Your task to perform on an android device: Show the shopping cart on newegg.com. Search for "apple airpods" on newegg.com, select the first entry, and add it to the cart. Image 0: 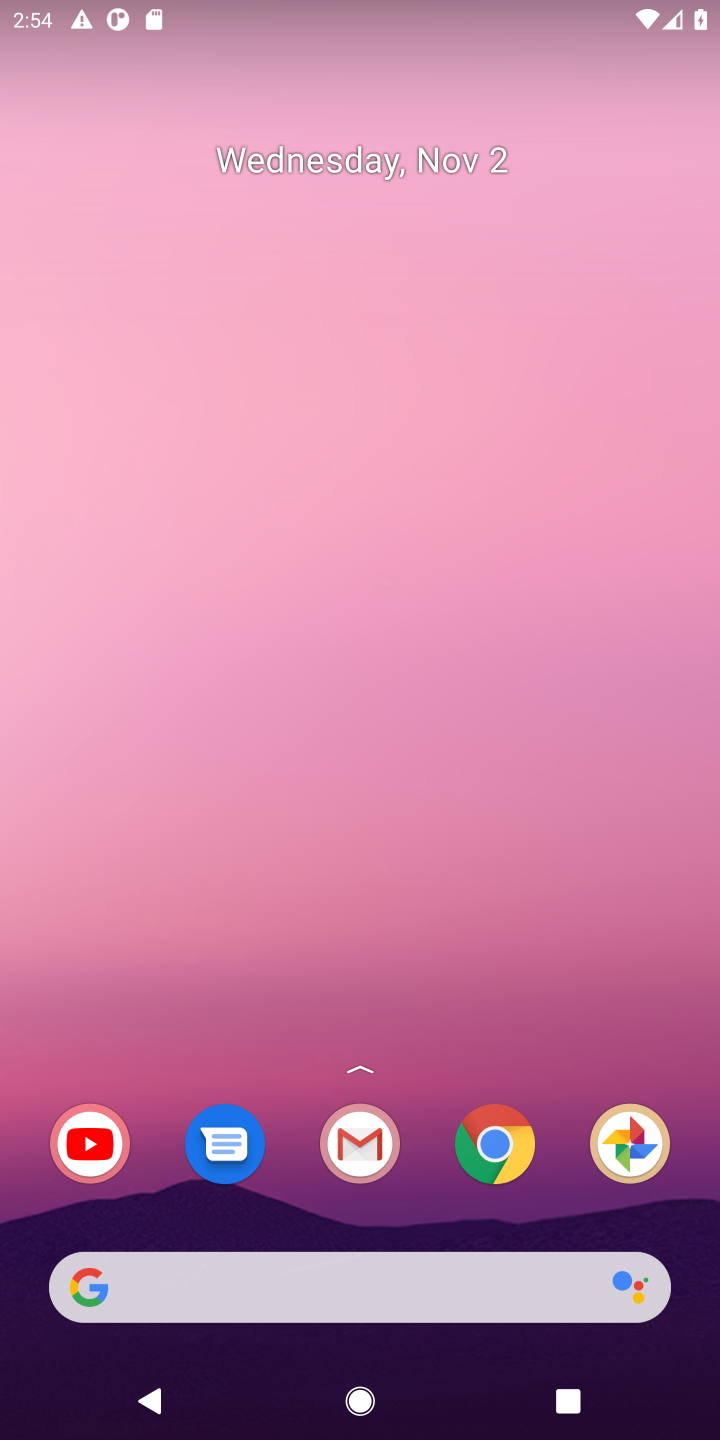
Step 0: press home button
Your task to perform on an android device: Show the shopping cart on newegg.com. Search for "apple airpods" on newegg.com, select the first entry, and add it to the cart. Image 1: 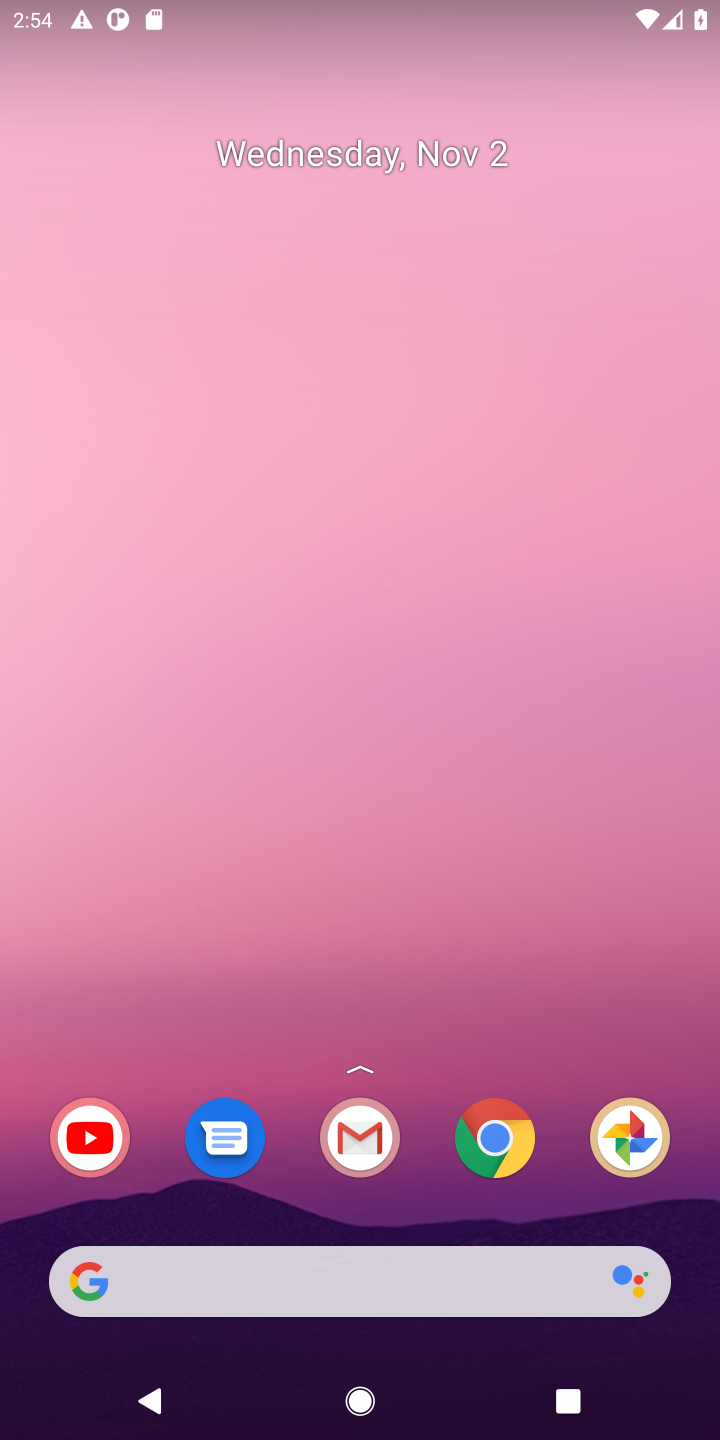
Step 1: click (152, 1272)
Your task to perform on an android device: Show the shopping cart on newegg.com. Search for "apple airpods" on newegg.com, select the first entry, and add it to the cart. Image 2: 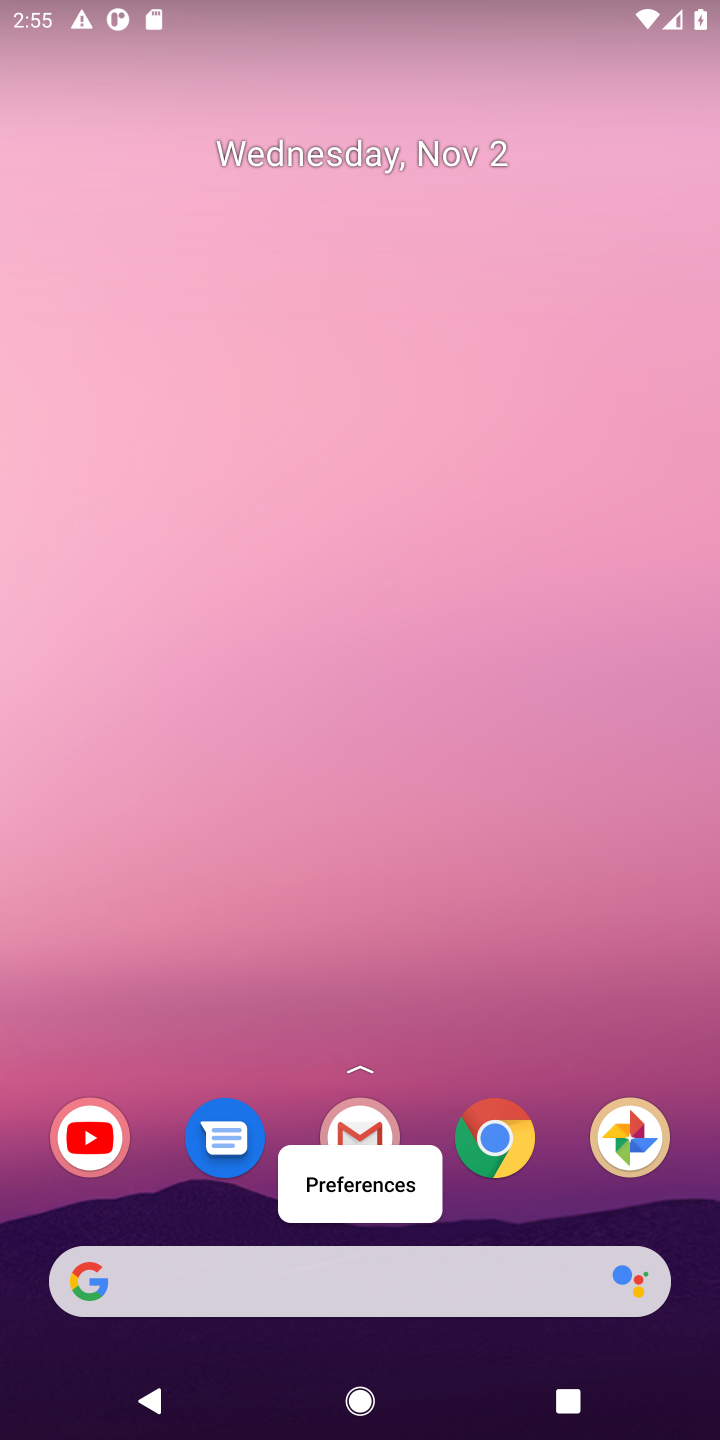
Step 2: click (135, 1273)
Your task to perform on an android device: Show the shopping cart on newegg.com. Search for "apple airpods" on newegg.com, select the first entry, and add it to the cart. Image 3: 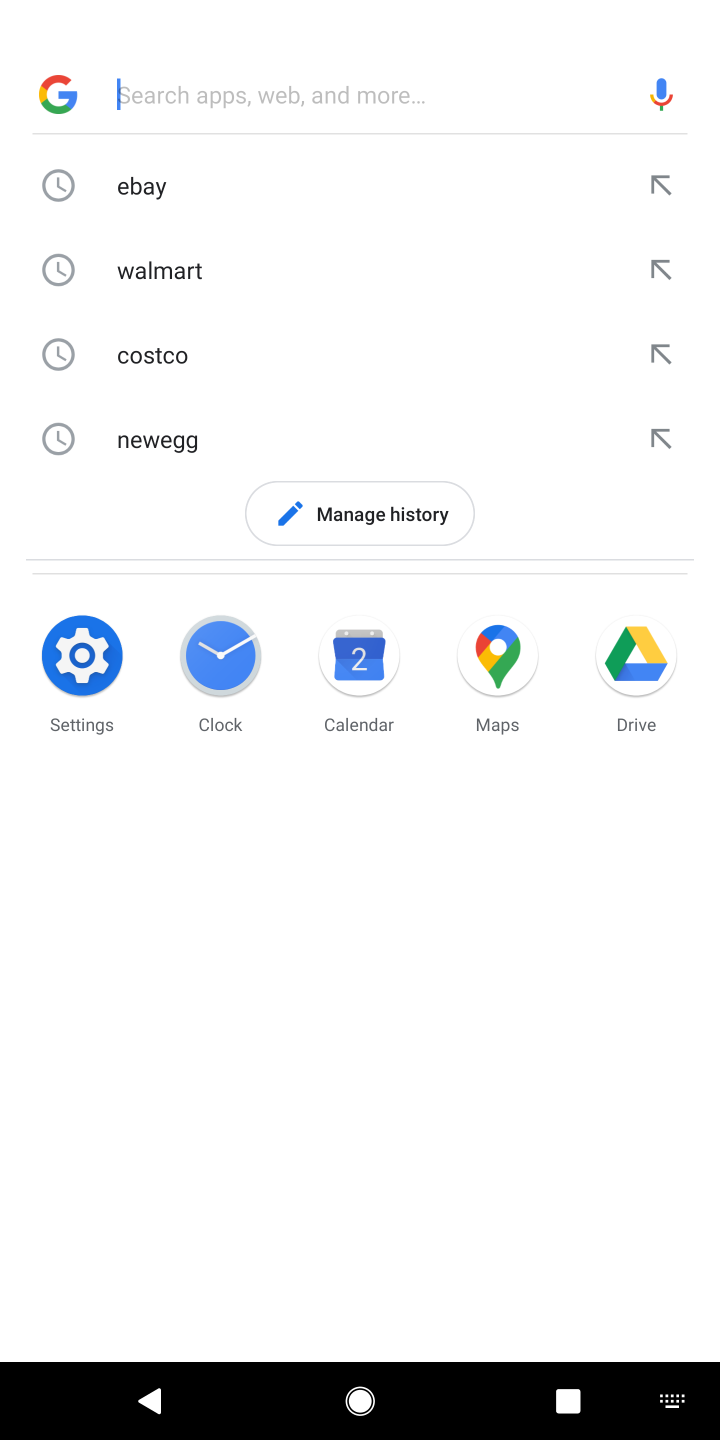
Step 3: type "newegg.com"
Your task to perform on an android device: Show the shopping cart on newegg.com. Search for "apple airpods" on newegg.com, select the first entry, and add it to the cart. Image 4: 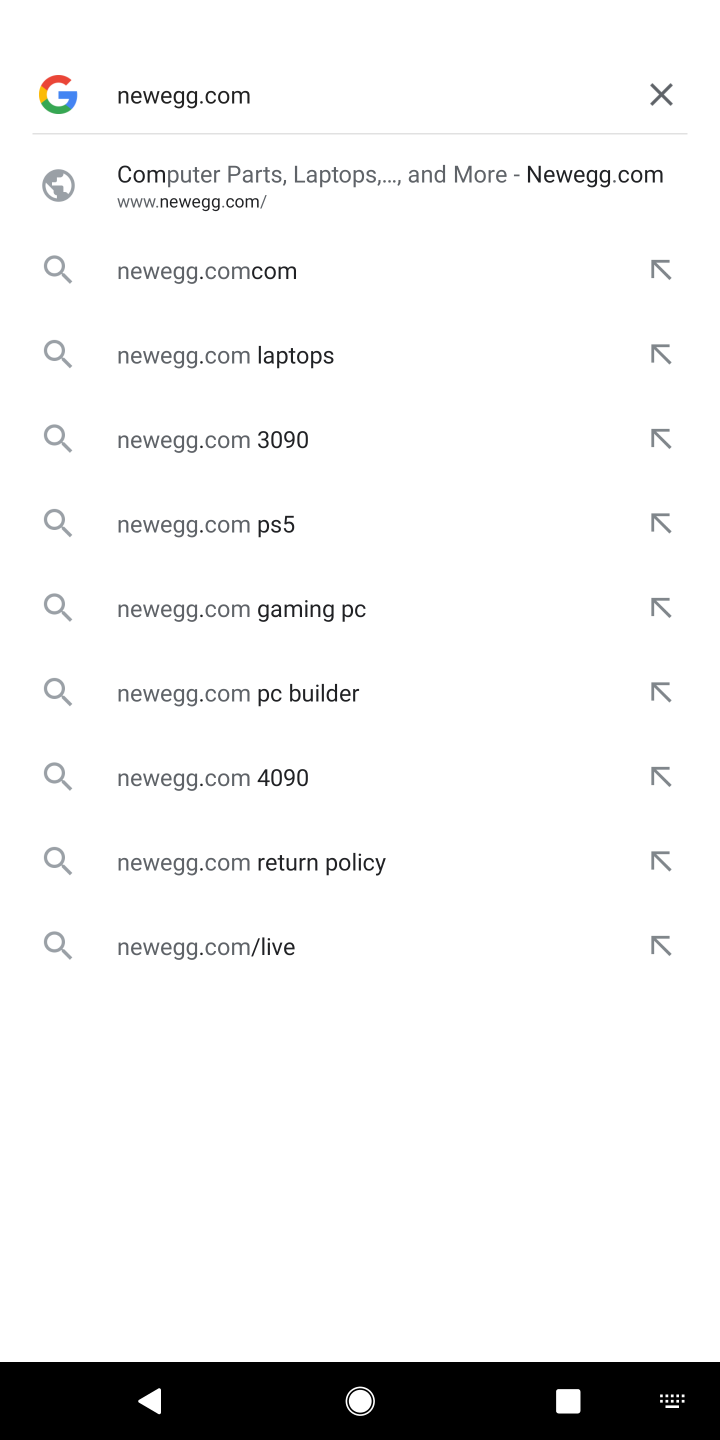
Step 4: press enter
Your task to perform on an android device: Show the shopping cart on newegg.com. Search for "apple airpods" on newegg.com, select the first entry, and add it to the cart. Image 5: 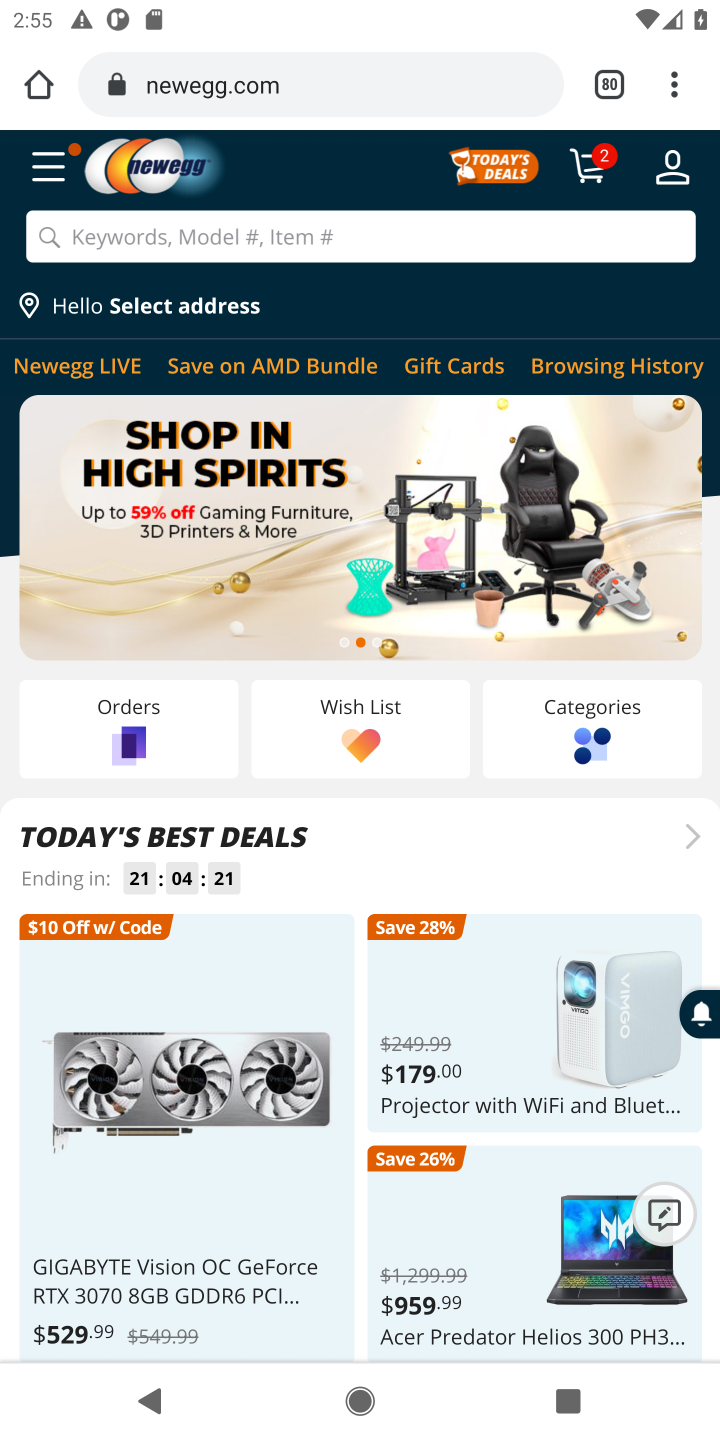
Step 5: click (586, 153)
Your task to perform on an android device: Show the shopping cart on newegg.com. Search for "apple airpods" on newegg.com, select the first entry, and add it to the cart. Image 6: 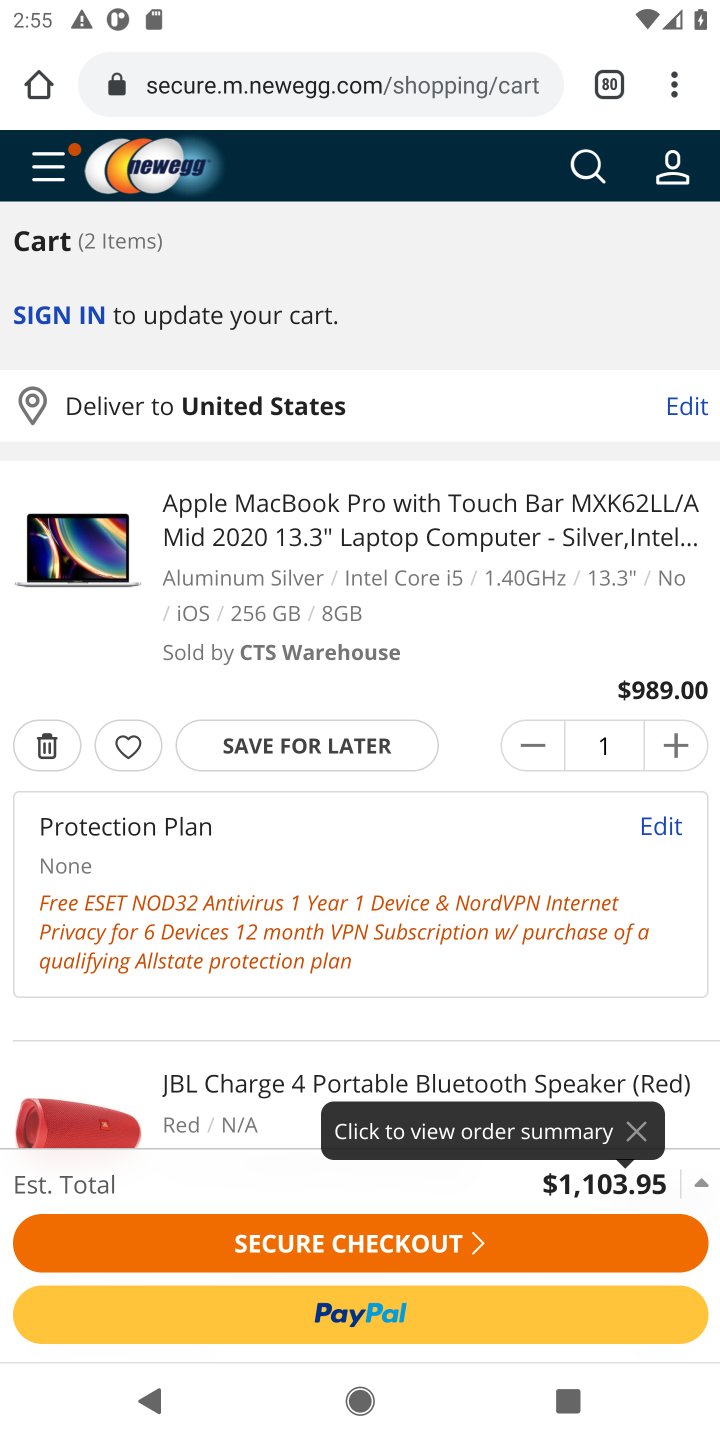
Step 6: click (595, 167)
Your task to perform on an android device: Show the shopping cart on newegg.com. Search for "apple airpods" on newegg.com, select the first entry, and add it to the cart. Image 7: 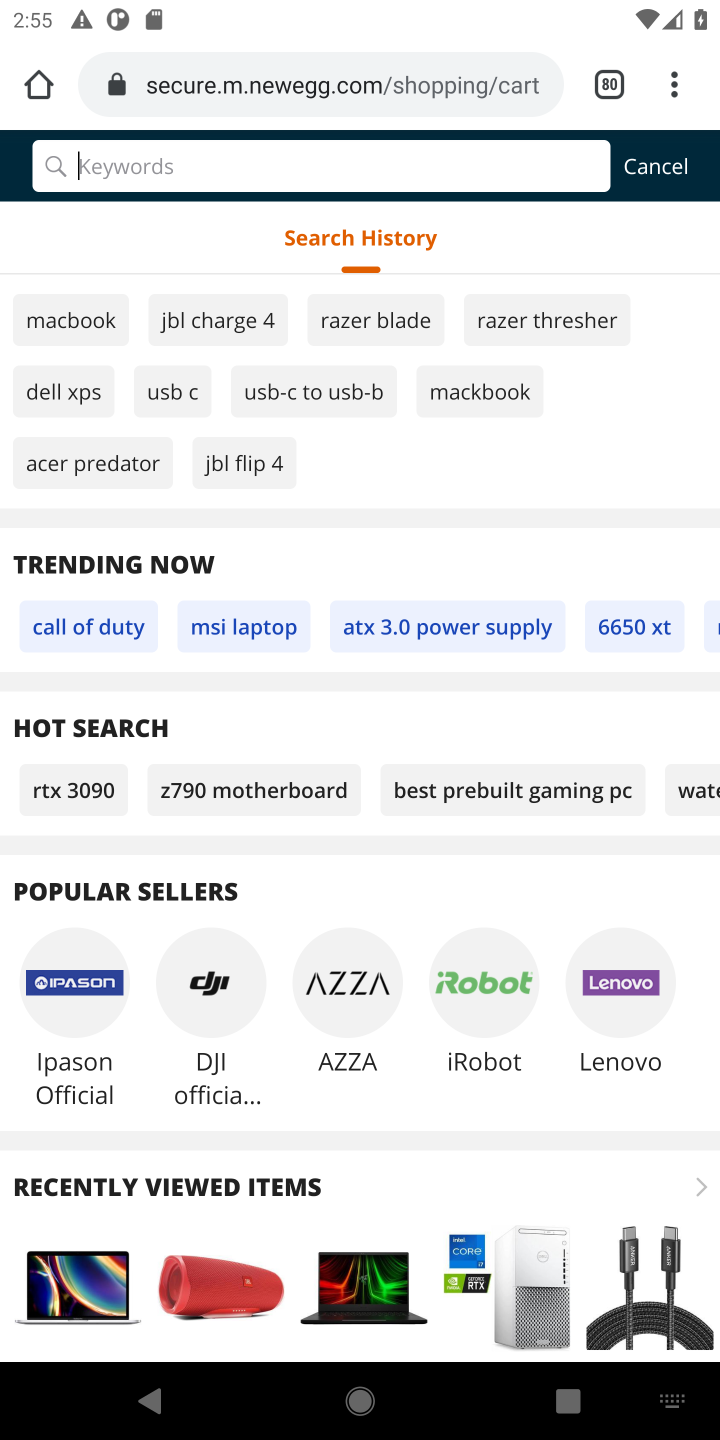
Step 7: click (240, 161)
Your task to perform on an android device: Show the shopping cart on newegg.com. Search for "apple airpods" on newegg.com, select the first entry, and add it to the cart. Image 8: 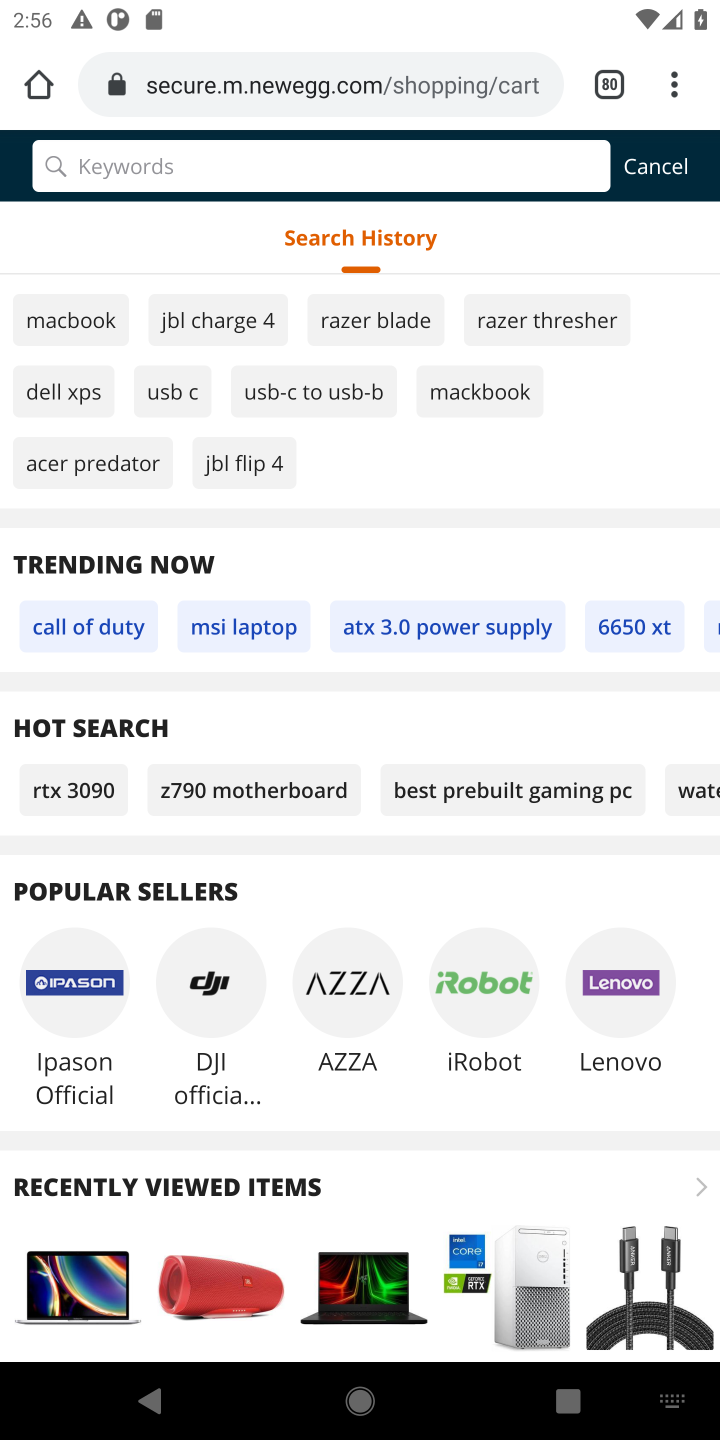
Step 8: type "apple airpods"
Your task to perform on an android device: Show the shopping cart on newegg.com. Search for "apple airpods" on newegg.com, select the first entry, and add it to the cart. Image 9: 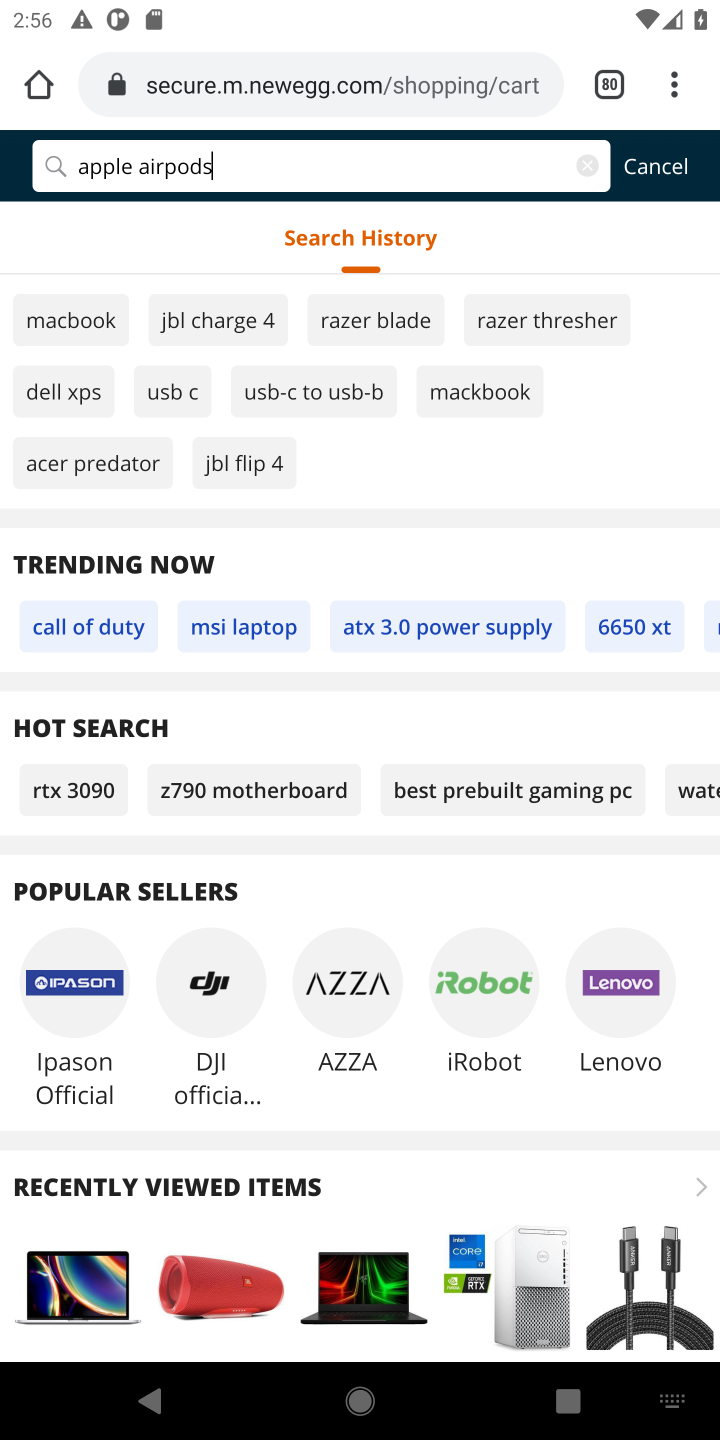
Step 9: press enter
Your task to perform on an android device: Show the shopping cart on newegg.com. Search for "apple airpods" on newegg.com, select the first entry, and add it to the cart. Image 10: 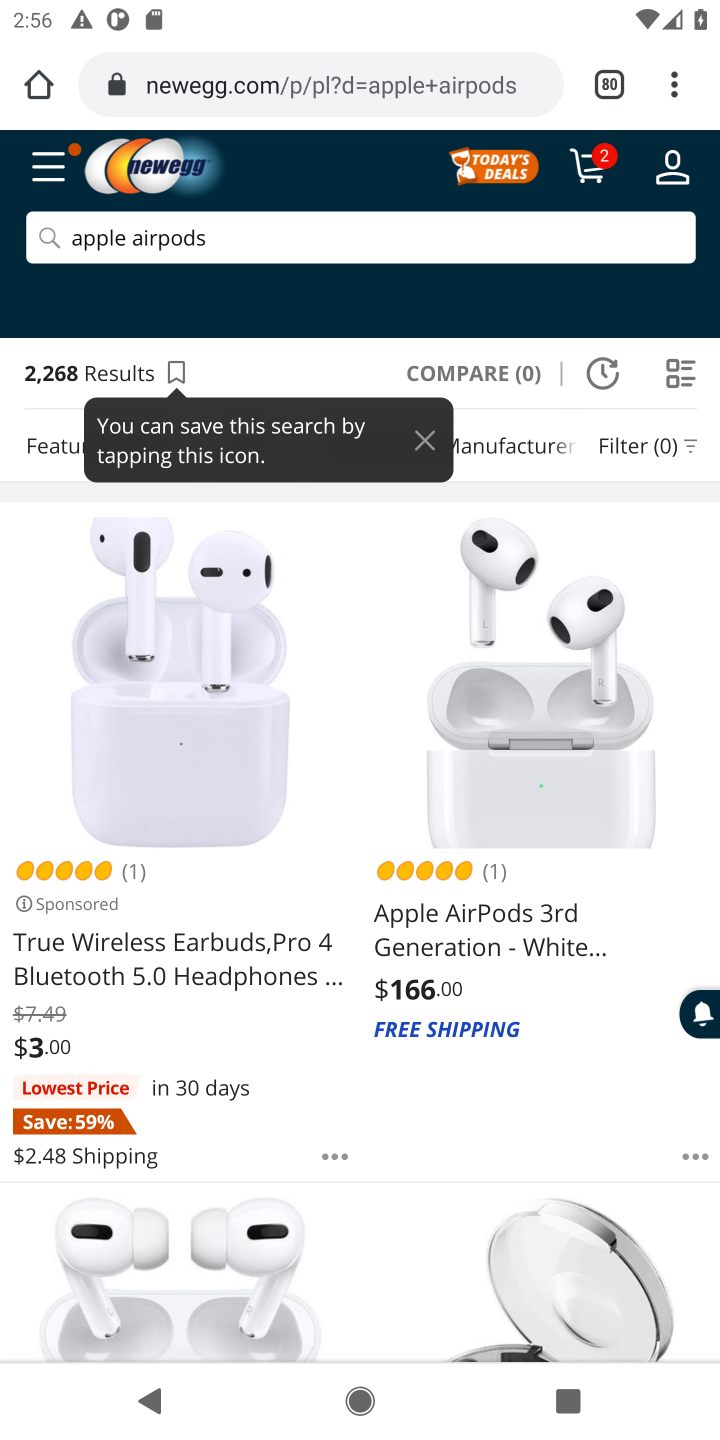
Step 10: drag from (432, 1119) to (426, 731)
Your task to perform on an android device: Show the shopping cart on newegg.com. Search for "apple airpods" on newegg.com, select the first entry, and add it to the cart. Image 11: 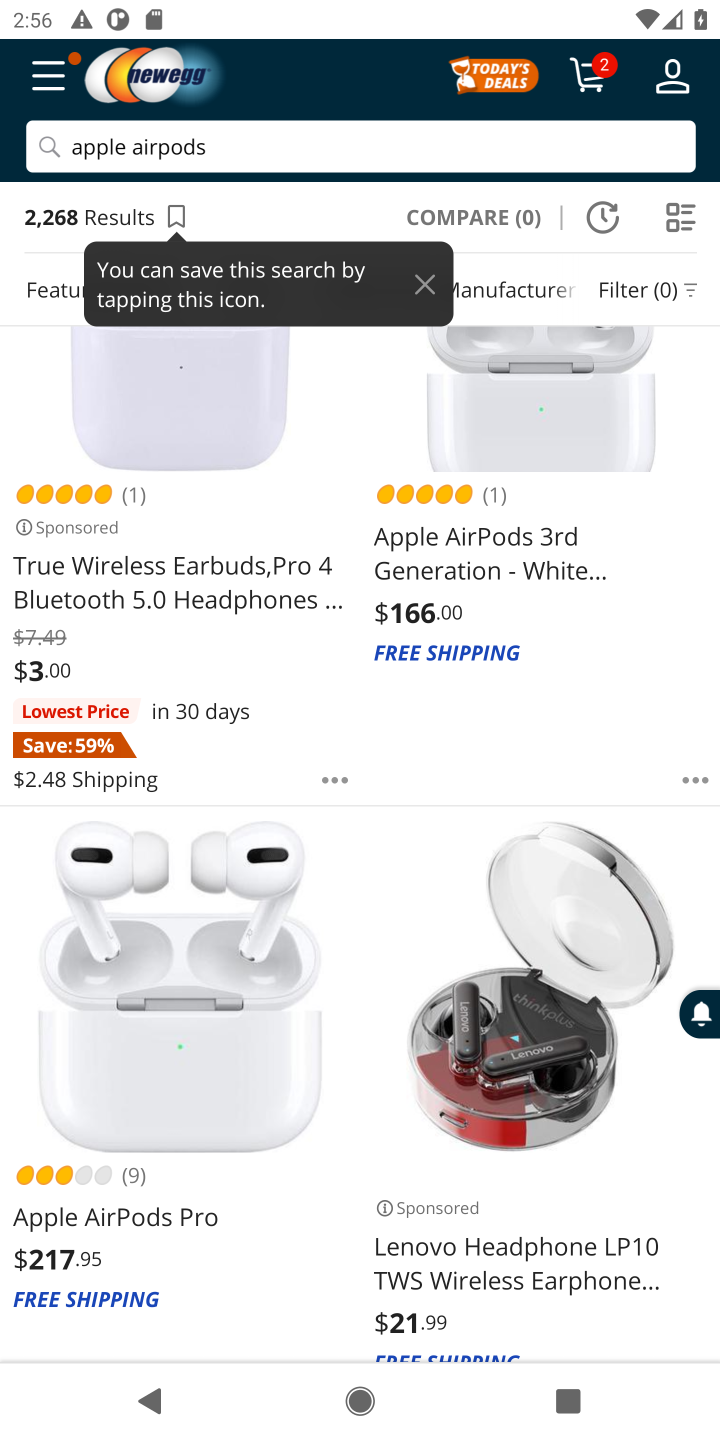
Step 11: drag from (337, 1210) to (331, 770)
Your task to perform on an android device: Show the shopping cart on newegg.com. Search for "apple airpods" on newegg.com, select the first entry, and add it to the cart. Image 12: 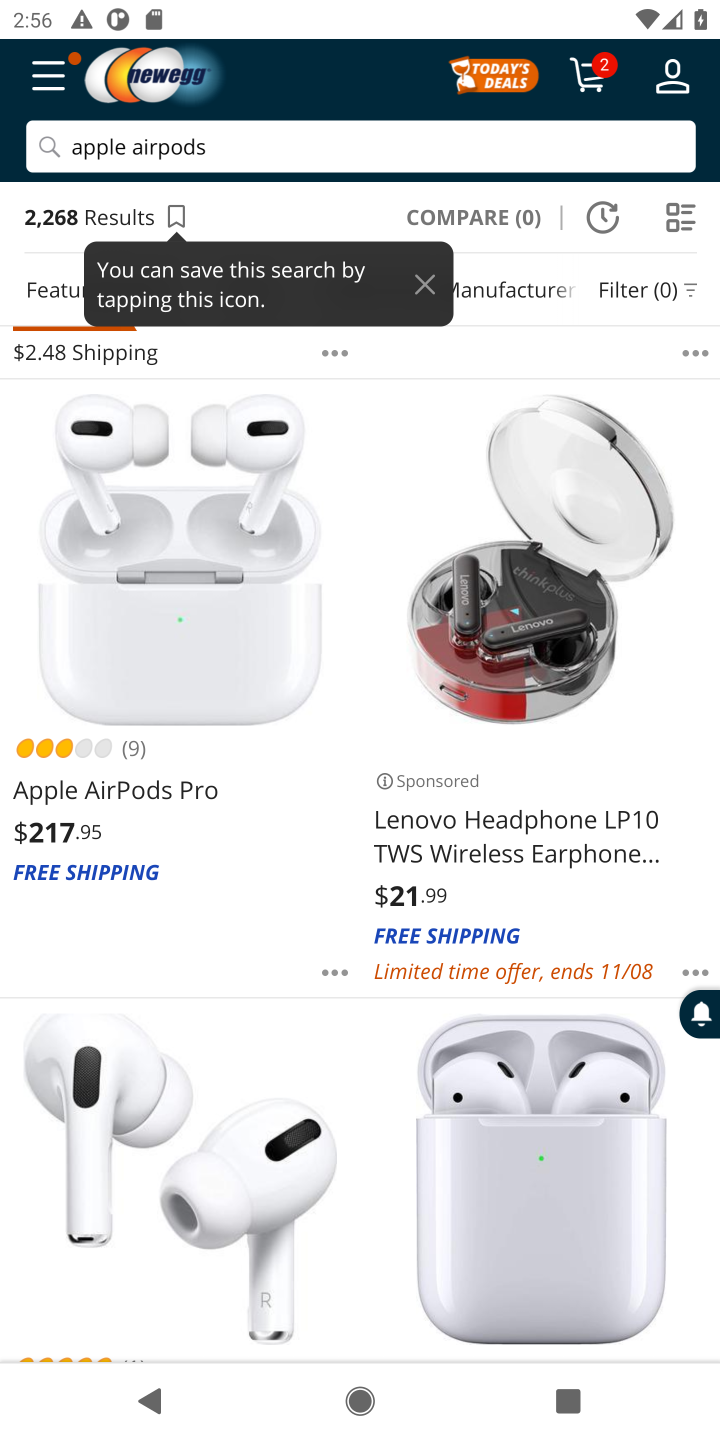
Step 12: click (113, 796)
Your task to perform on an android device: Show the shopping cart on newegg.com. Search for "apple airpods" on newegg.com, select the first entry, and add it to the cart. Image 13: 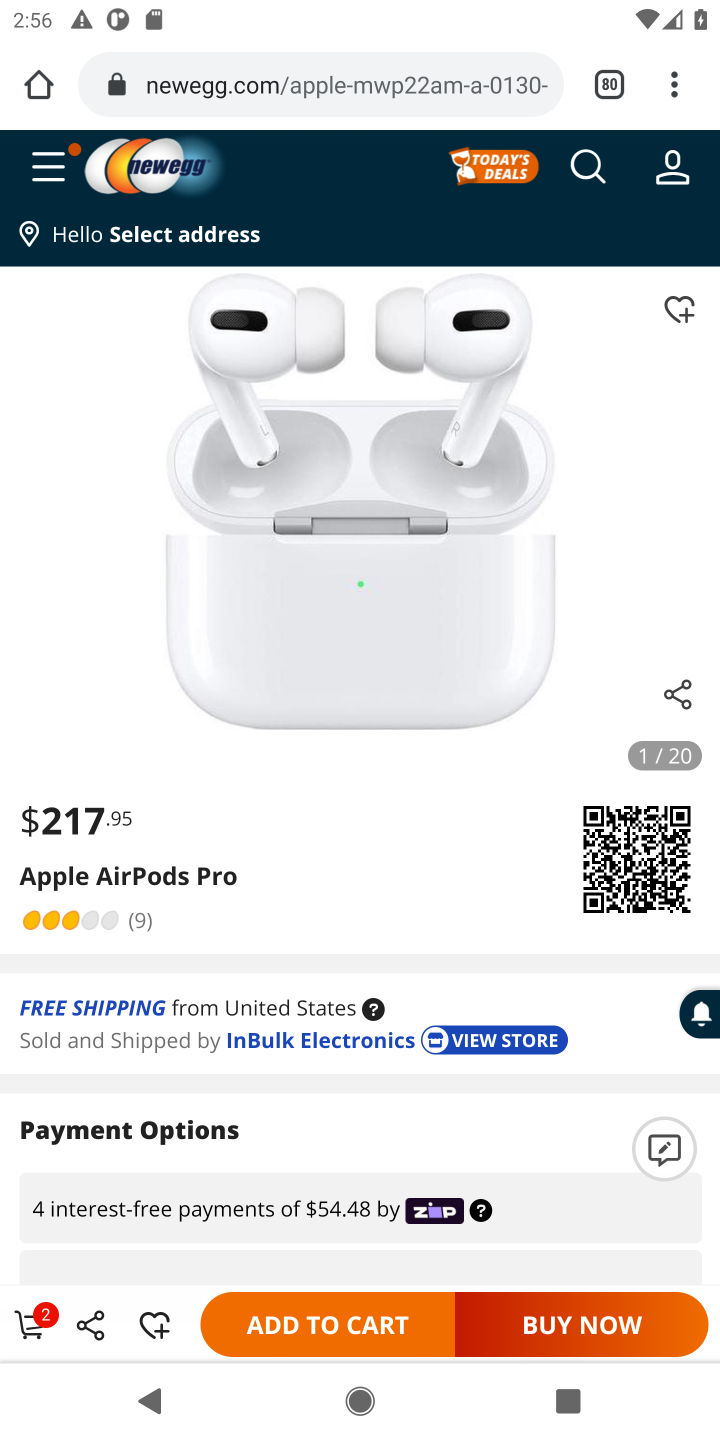
Step 13: click (305, 1331)
Your task to perform on an android device: Show the shopping cart on newegg.com. Search for "apple airpods" on newegg.com, select the first entry, and add it to the cart. Image 14: 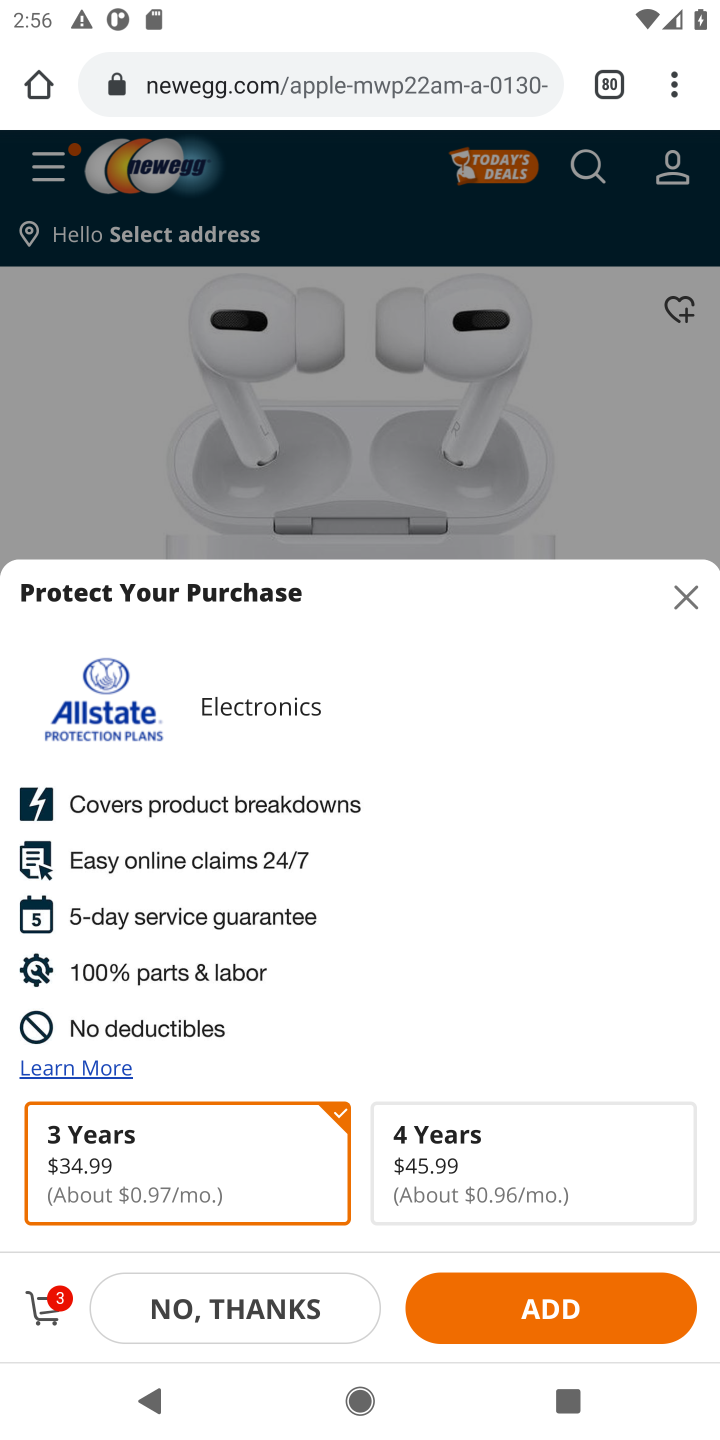
Step 14: task complete